Your task to perform on an android device: Open Google Chrome and click the shortcut for Amazon.com Image 0: 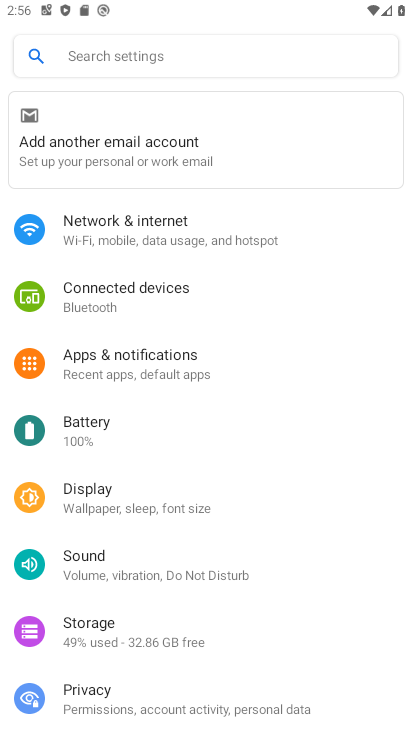
Step 0: press home button
Your task to perform on an android device: Open Google Chrome and click the shortcut for Amazon.com Image 1: 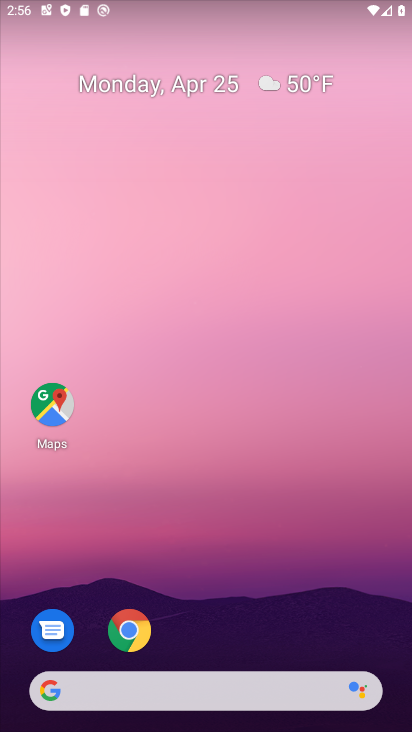
Step 1: click (125, 634)
Your task to perform on an android device: Open Google Chrome and click the shortcut for Amazon.com Image 2: 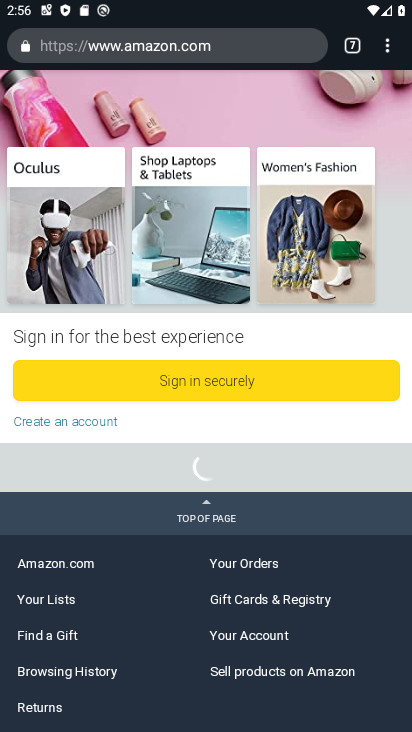
Step 2: click (351, 50)
Your task to perform on an android device: Open Google Chrome and click the shortcut for Amazon.com Image 3: 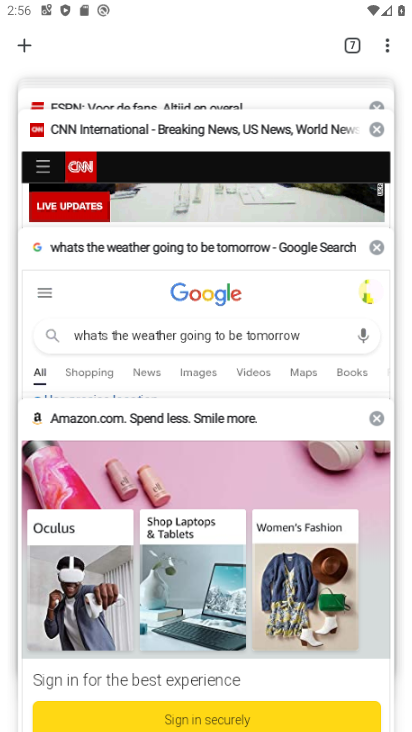
Step 3: click (22, 42)
Your task to perform on an android device: Open Google Chrome and click the shortcut for Amazon.com Image 4: 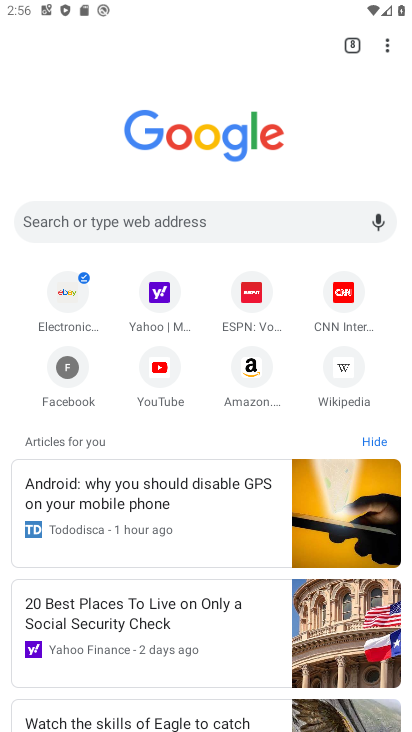
Step 4: click (248, 369)
Your task to perform on an android device: Open Google Chrome and click the shortcut for Amazon.com Image 5: 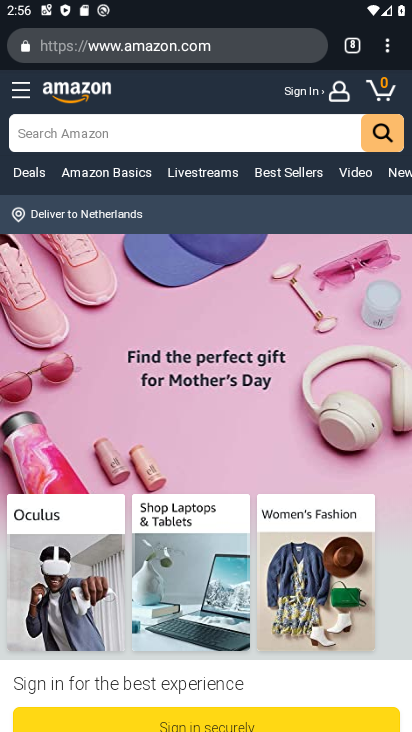
Step 5: task complete